Your task to perform on an android device: Go to battery settings Image 0: 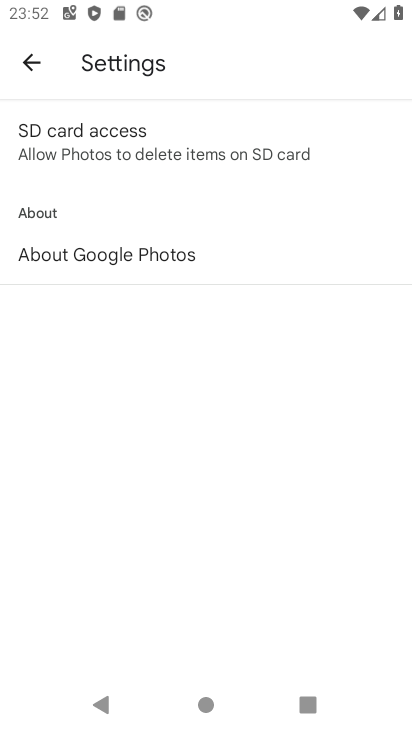
Step 0: click (349, 412)
Your task to perform on an android device: Go to battery settings Image 1: 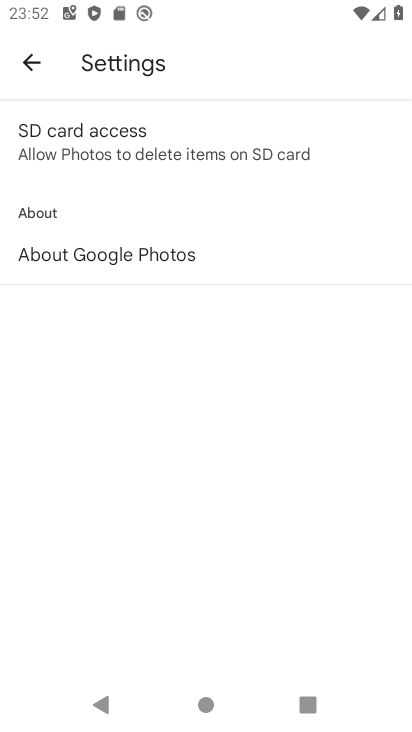
Step 1: press home button
Your task to perform on an android device: Go to battery settings Image 2: 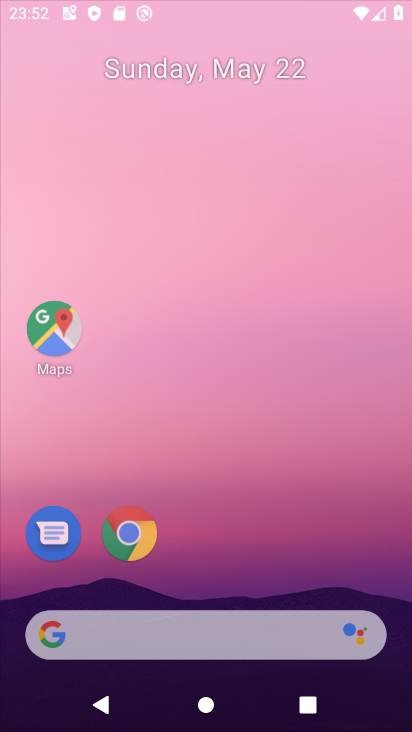
Step 2: drag from (244, 644) to (304, 31)
Your task to perform on an android device: Go to battery settings Image 3: 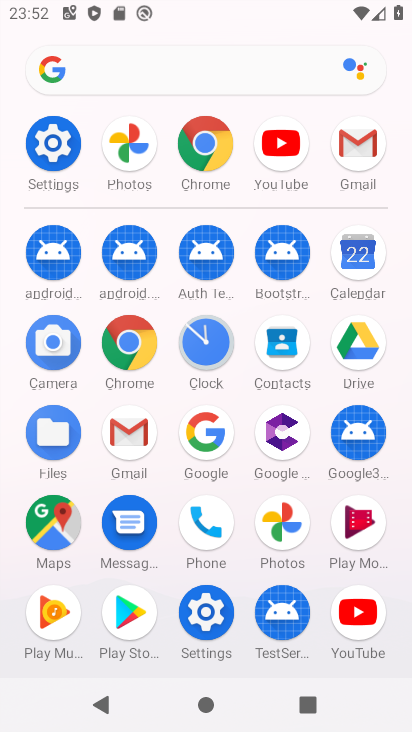
Step 3: click (62, 143)
Your task to perform on an android device: Go to battery settings Image 4: 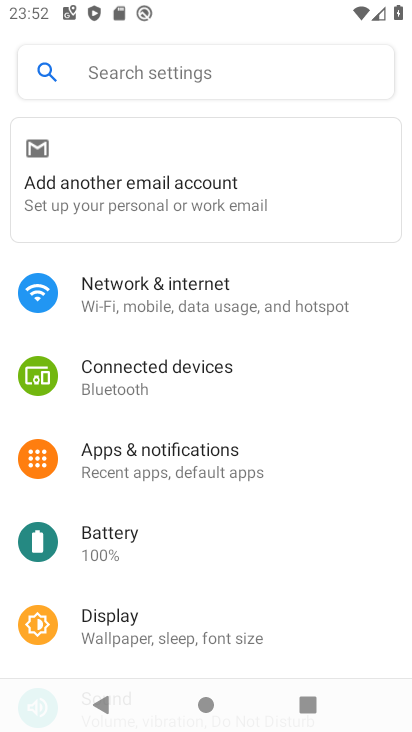
Step 4: drag from (126, 640) to (204, 425)
Your task to perform on an android device: Go to battery settings Image 5: 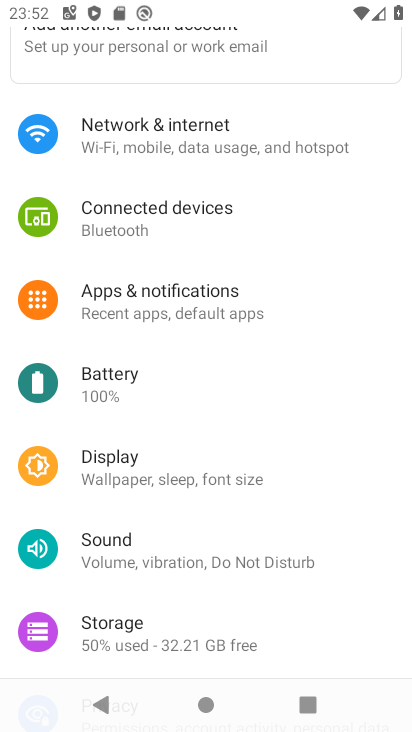
Step 5: click (120, 381)
Your task to perform on an android device: Go to battery settings Image 6: 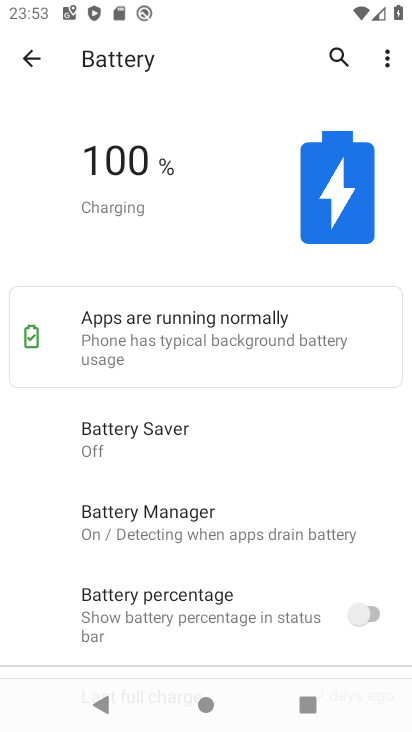
Step 6: task complete